Your task to perform on an android device: change notifications settings Image 0: 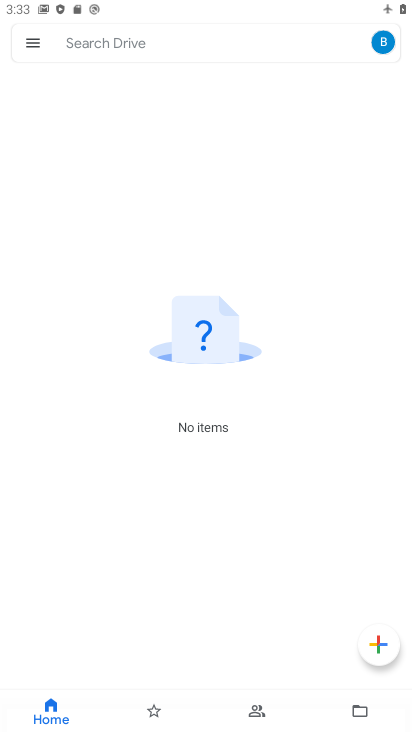
Step 0: press home button
Your task to perform on an android device: change notifications settings Image 1: 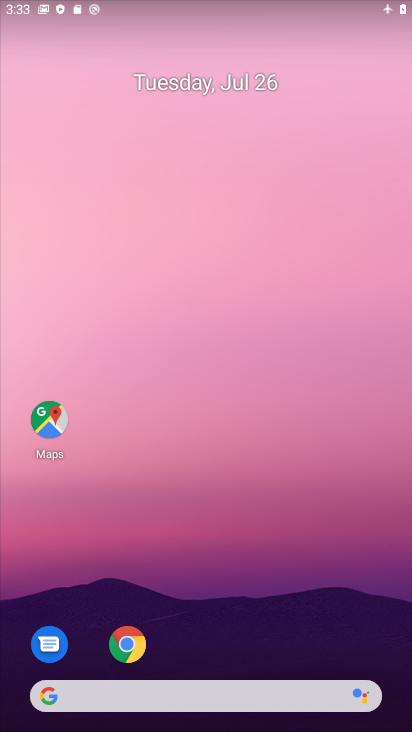
Step 1: drag from (396, 657) to (322, 119)
Your task to perform on an android device: change notifications settings Image 2: 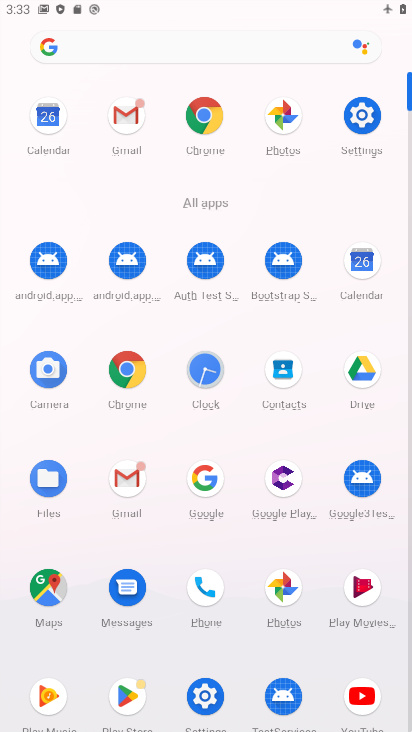
Step 2: click (205, 695)
Your task to perform on an android device: change notifications settings Image 3: 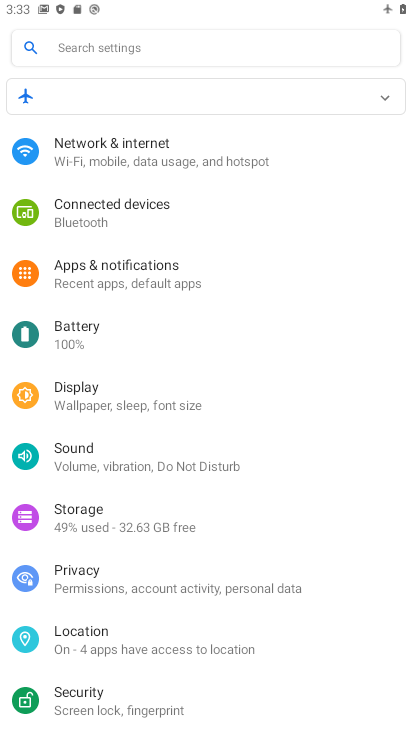
Step 3: click (94, 264)
Your task to perform on an android device: change notifications settings Image 4: 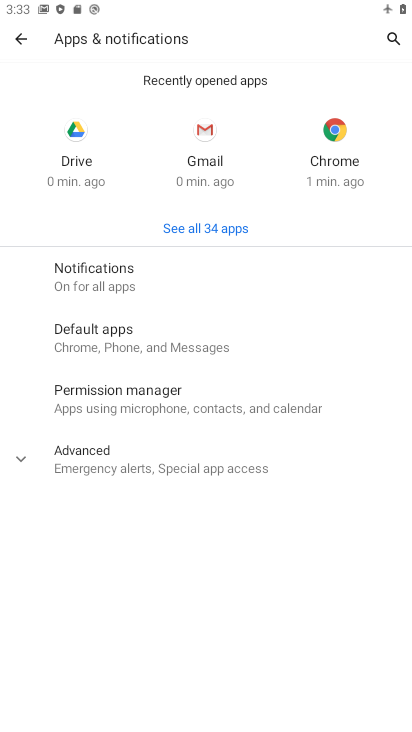
Step 4: click (94, 270)
Your task to perform on an android device: change notifications settings Image 5: 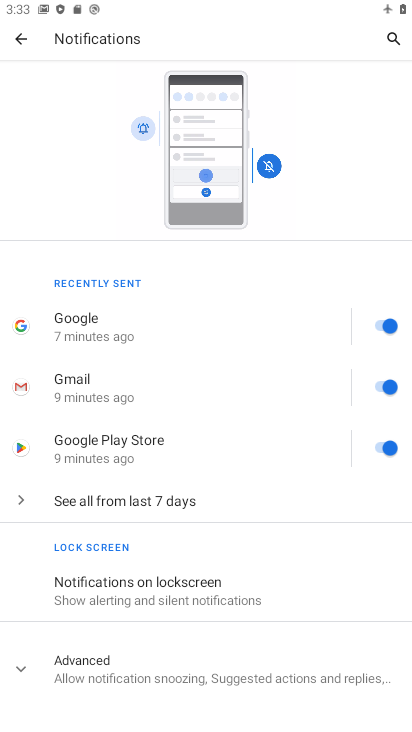
Step 5: click (23, 668)
Your task to perform on an android device: change notifications settings Image 6: 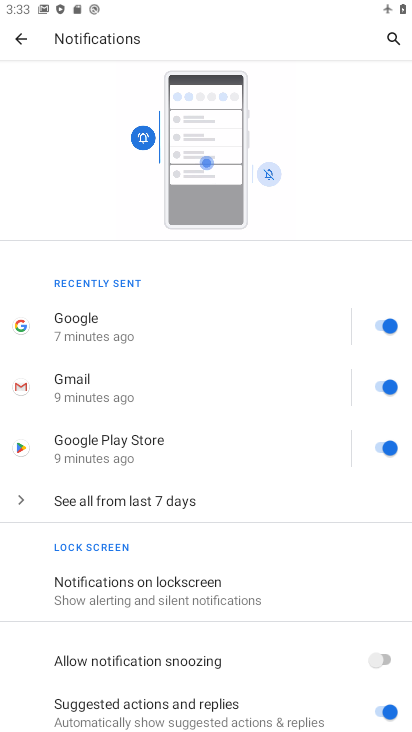
Step 6: drag from (291, 649) to (330, 214)
Your task to perform on an android device: change notifications settings Image 7: 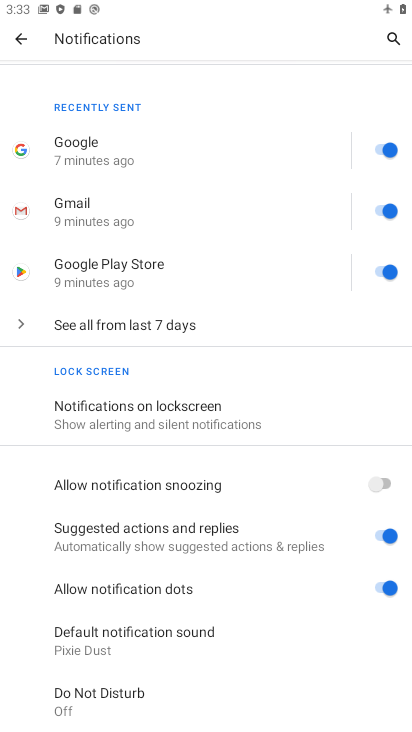
Step 7: click (375, 584)
Your task to perform on an android device: change notifications settings Image 8: 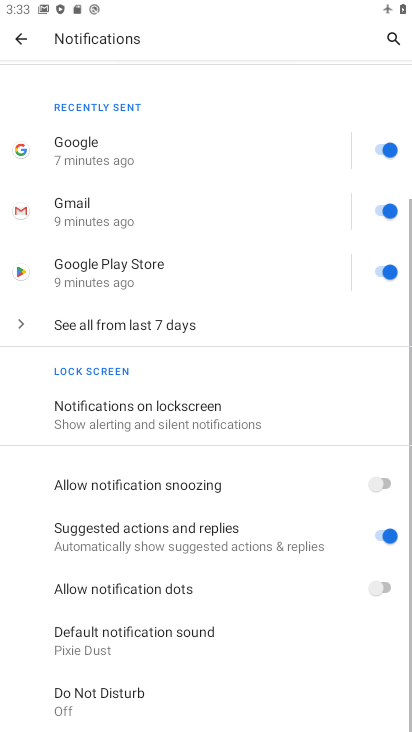
Step 8: click (382, 479)
Your task to perform on an android device: change notifications settings Image 9: 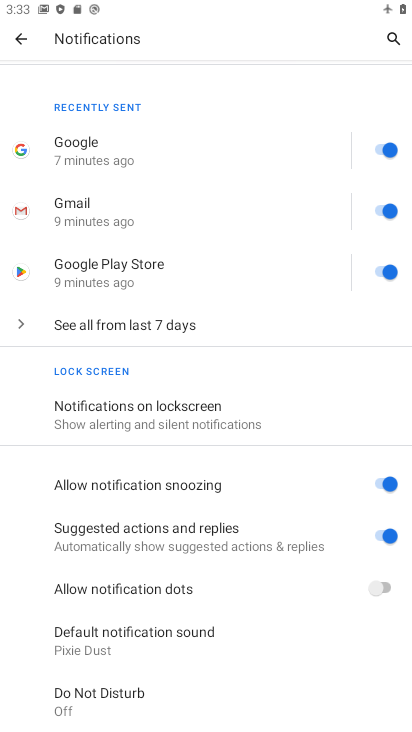
Step 9: task complete